Your task to perform on an android device: What is the recent news? Image 0: 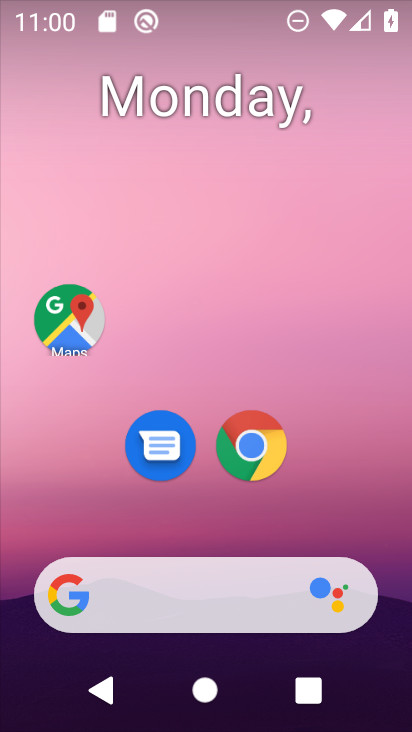
Step 0: click (254, 450)
Your task to perform on an android device: What is the recent news? Image 1: 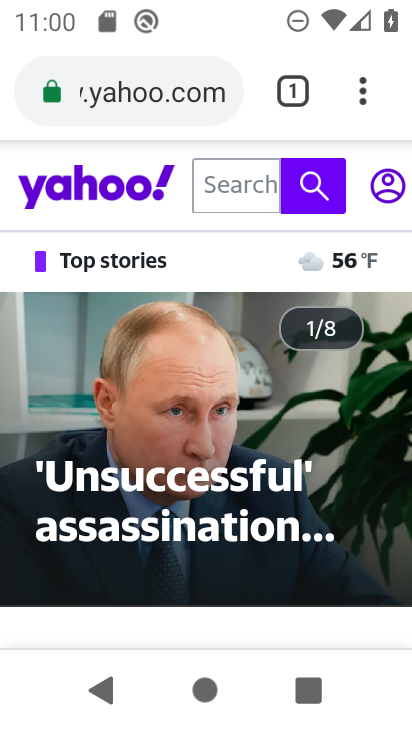
Step 1: click (122, 85)
Your task to perform on an android device: What is the recent news? Image 2: 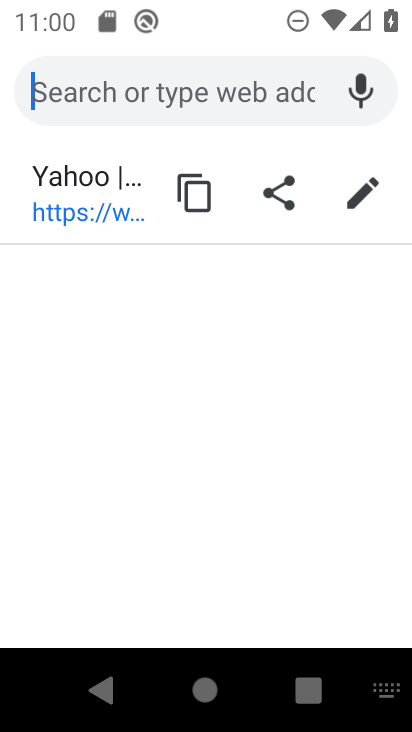
Step 2: type "recent news"
Your task to perform on an android device: What is the recent news? Image 3: 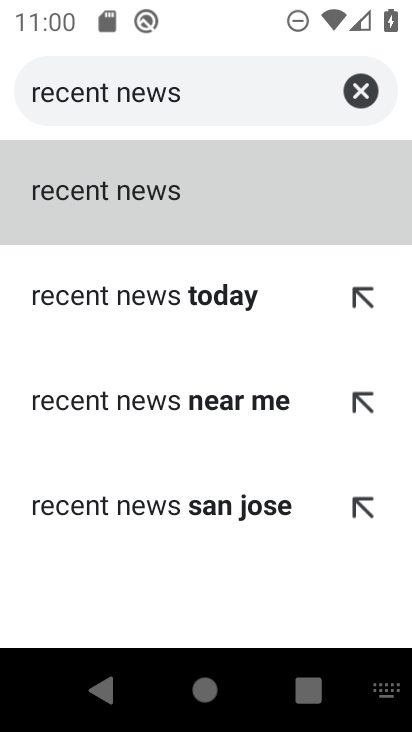
Step 3: click (189, 187)
Your task to perform on an android device: What is the recent news? Image 4: 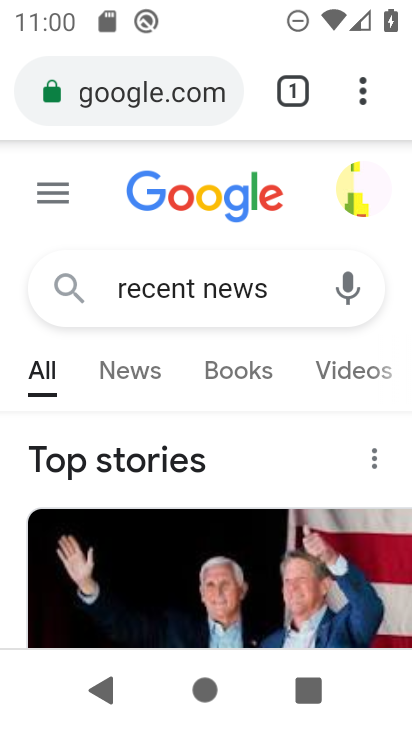
Step 4: task complete